Your task to perform on an android device: Open calendar and show me the second week of next month Image 0: 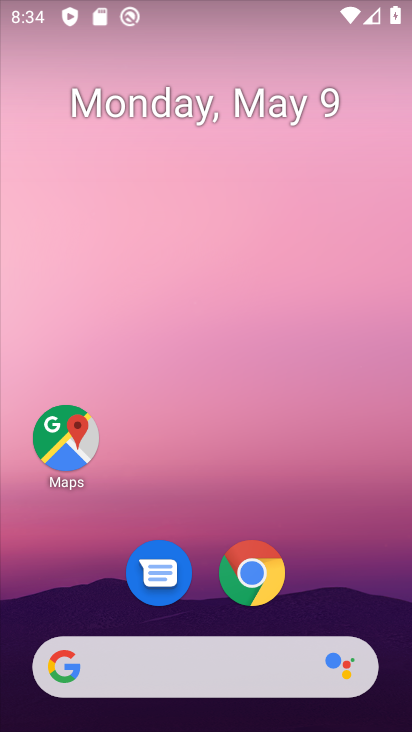
Step 0: drag from (311, 592) to (368, 74)
Your task to perform on an android device: Open calendar and show me the second week of next month Image 1: 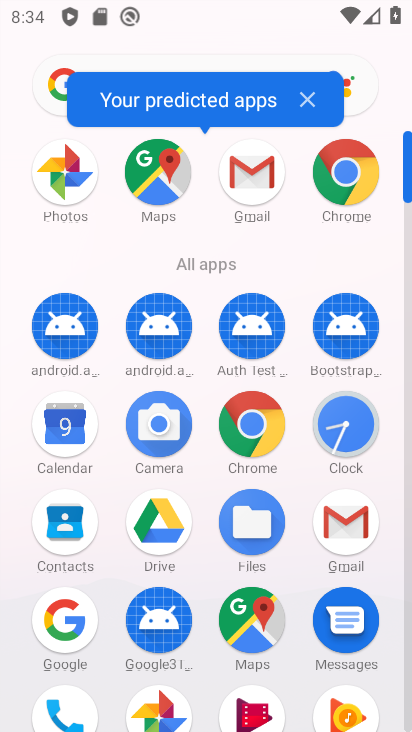
Step 1: click (77, 432)
Your task to perform on an android device: Open calendar and show me the second week of next month Image 2: 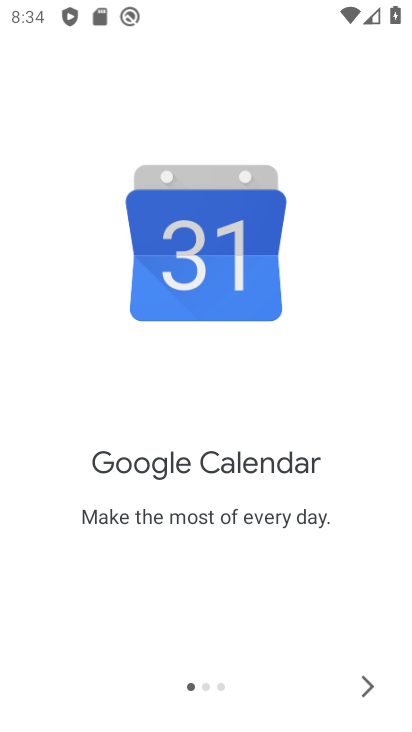
Step 2: click (370, 691)
Your task to perform on an android device: Open calendar and show me the second week of next month Image 3: 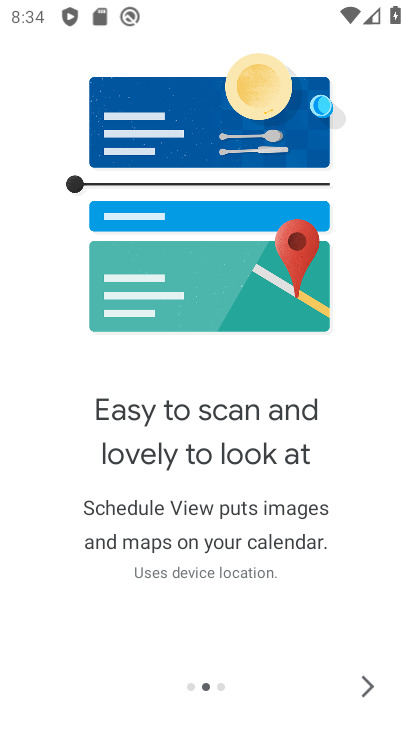
Step 3: click (367, 689)
Your task to perform on an android device: Open calendar and show me the second week of next month Image 4: 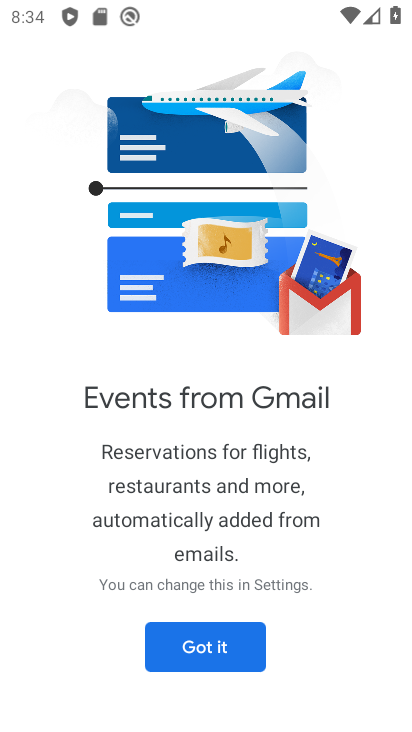
Step 4: click (260, 641)
Your task to perform on an android device: Open calendar and show me the second week of next month Image 5: 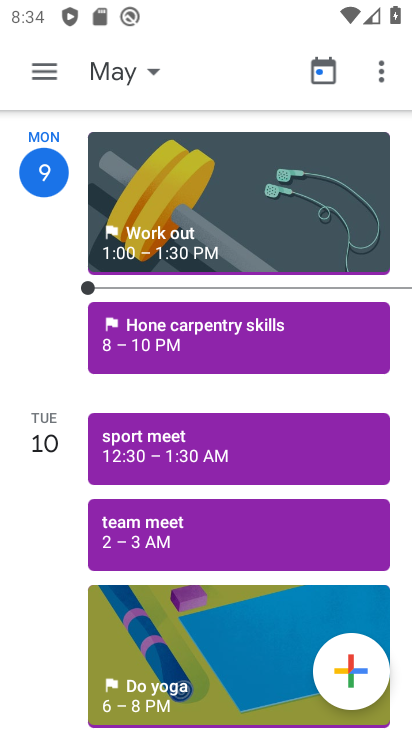
Step 5: click (138, 75)
Your task to perform on an android device: Open calendar and show me the second week of next month Image 6: 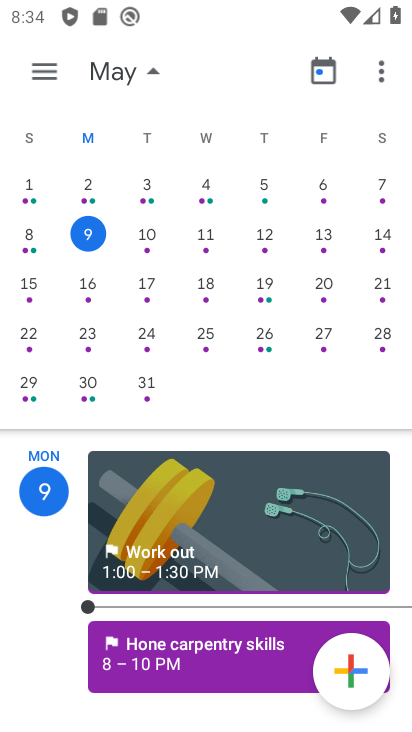
Step 6: drag from (345, 263) to (0, 262)
Your task to perform on an android device: Open calendar and show me the second week of next month Image 7: 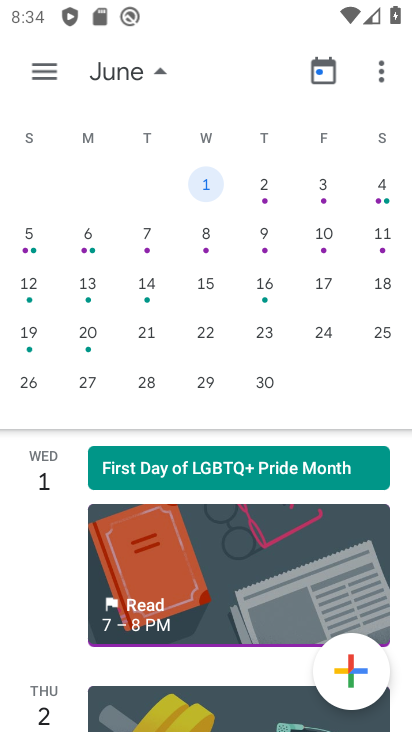
Step 7: click (41, 245)
Your task to perform on an android device: Open calendar and show me the second week of next month Image 8: 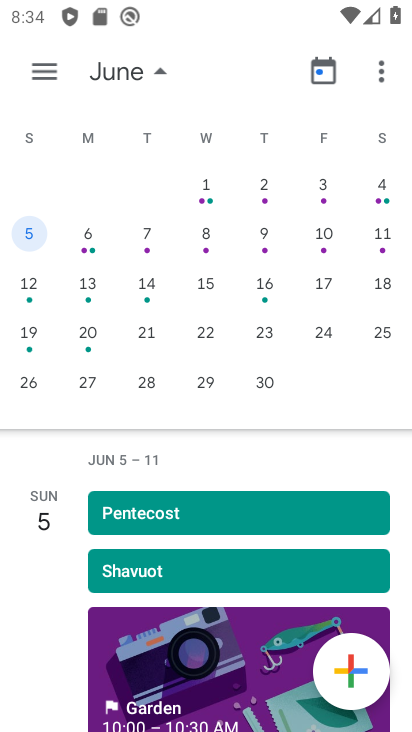
Step 8: task complete